Your task to perform on an android device: find photos in the google photos app Image 0: 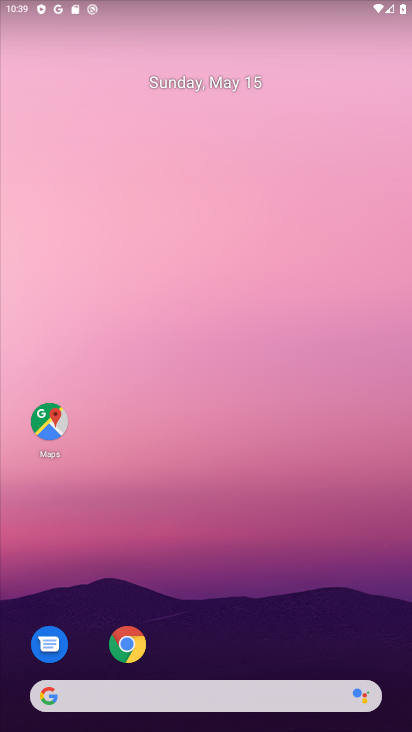
Step 0: drag from (277, 634) to (184, 87)
Your task to perform on an android device: find photos in the google photos app Image 1: 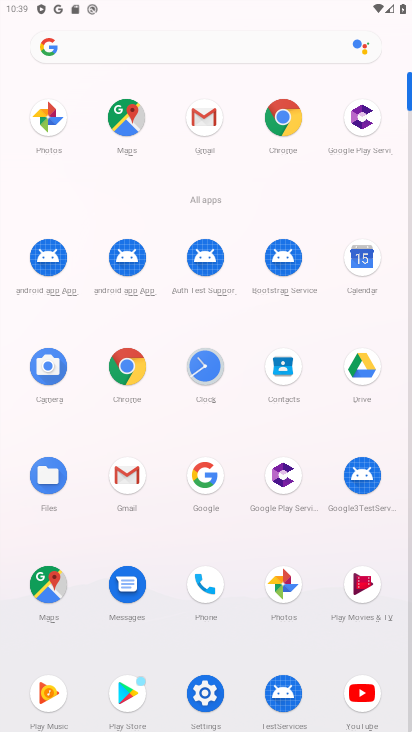
Step 1: click (45, 123)
Your task to perform on an android device: find photos in the google photos app Image 2: 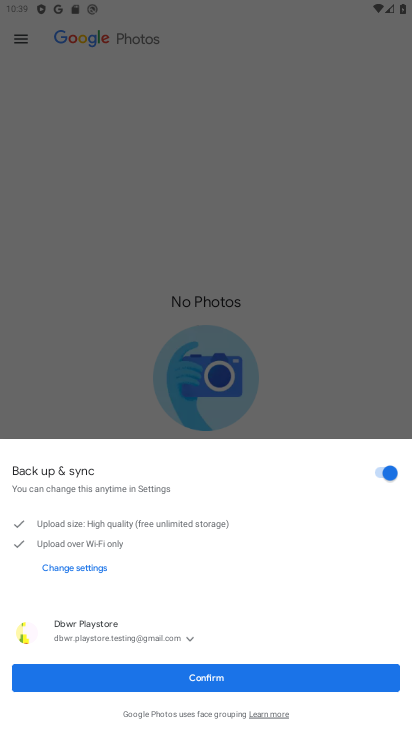
Step 2: click (209, 683)
Your task to perform on an android device: find photos in the google photos app Image 3: 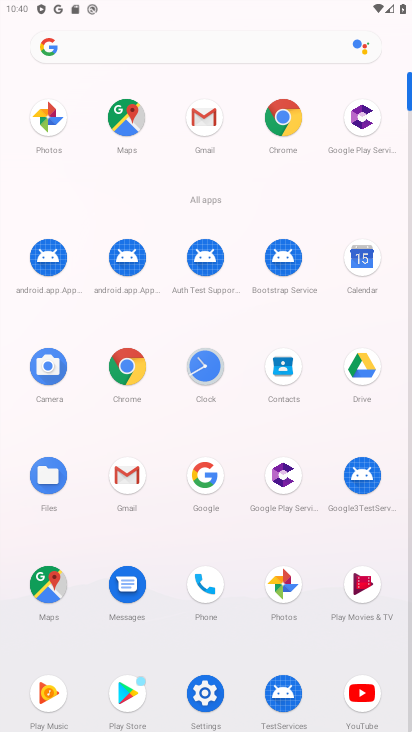
Step 3: click (46, 127)
Your task to perform on an android device: find photos in the google photos app Image 4: 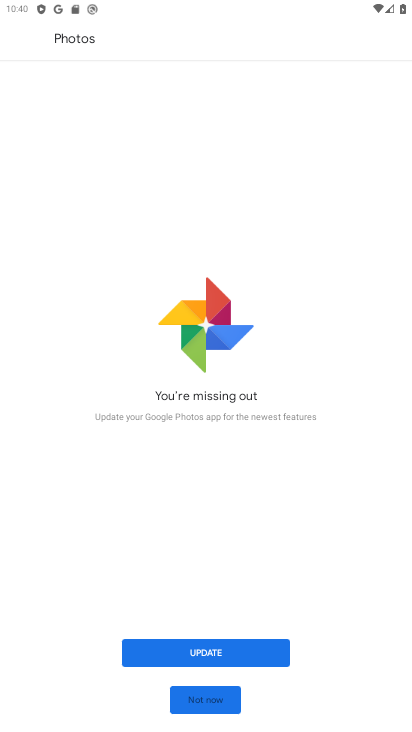
Step 4: click (219, 651)
Your task to perform on an android device: find photos in the google photos app Image 5: 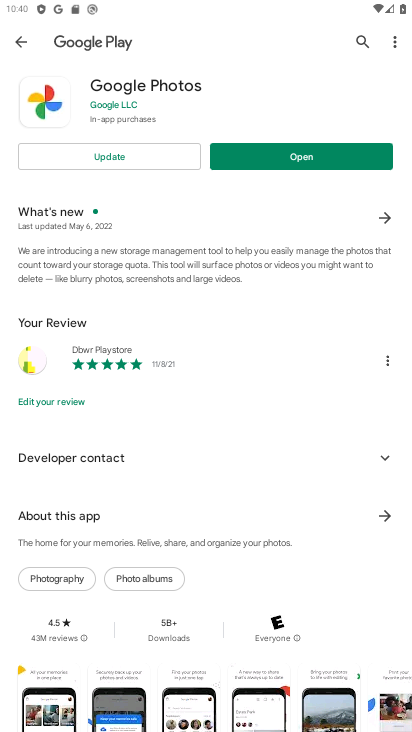
Step 5: click (133, 159)
Your task to perform on an android device: find photos in the google photos app Image 6: 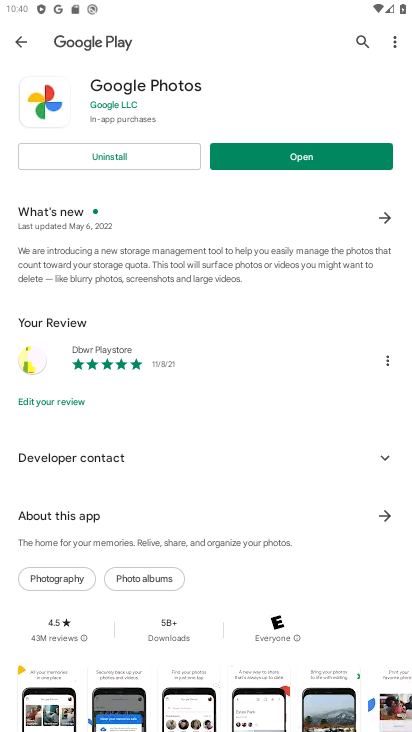
Step 6: click (364, 162)
Your task to perform on an android device: find photos in the google photos app Image 7: 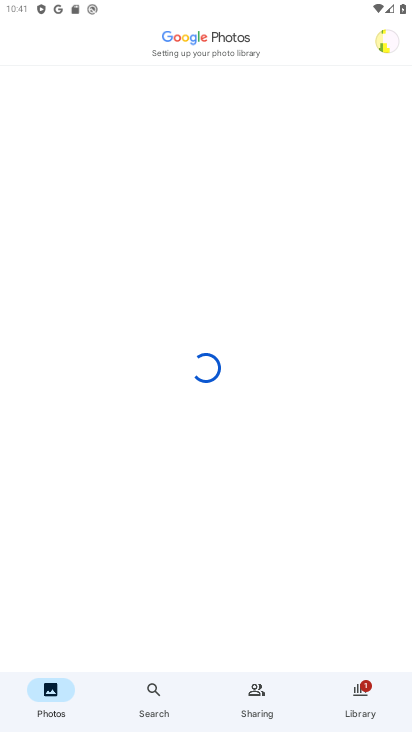
Step 7: task complete